Your task to perform on an android device: Go to accessibility settings Image 0: 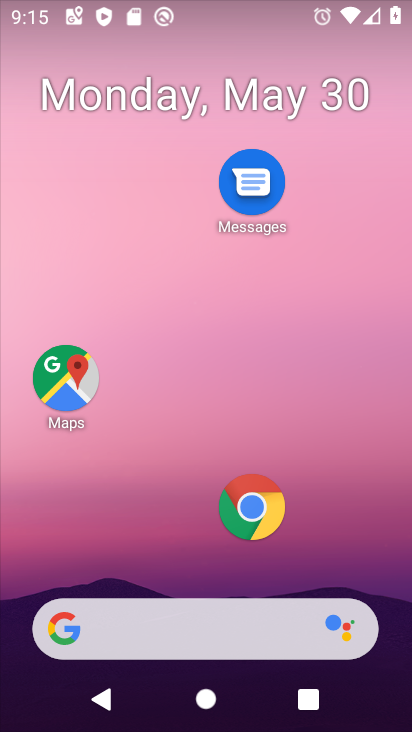
Step 0: drag from (206, 573) to (154, 114)
Your task to perform on an android device: Go to accessibility settings Image 1: 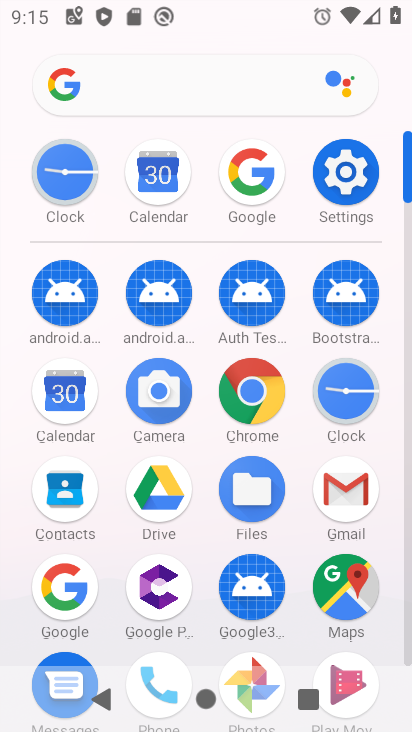
Step 1: click (344, 172)
Your task to perform on an android device: Go to accessibility settings Image 2: 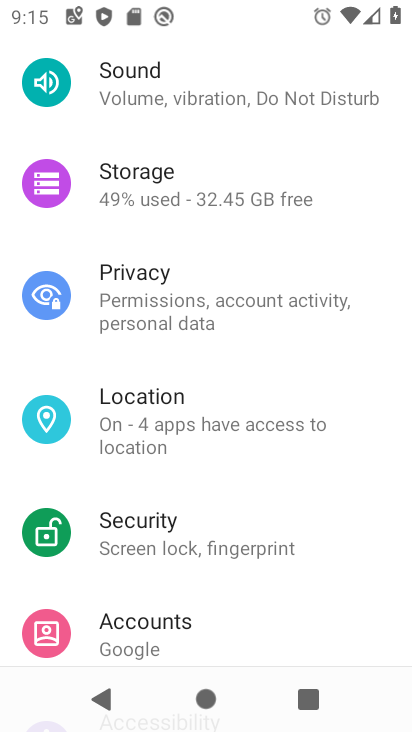
Step 2: drag from (154, 628) to (179, 268)
Your task to perform on an android device: Go to accessibility settings Image 3: 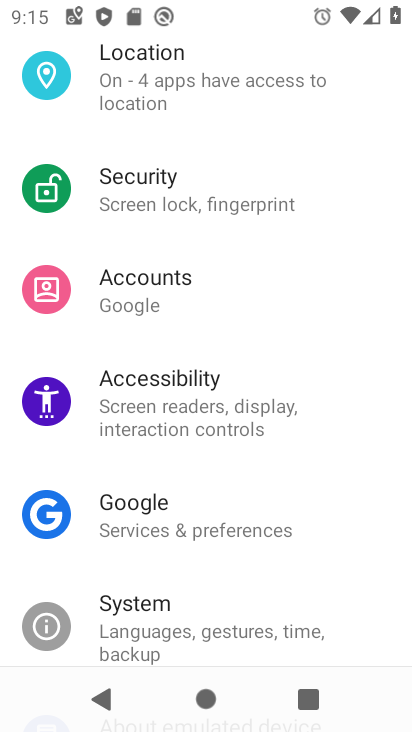
Step 3: click (193, 416)
Your task to perform on an android device: Go to accessibility settings Image 4: 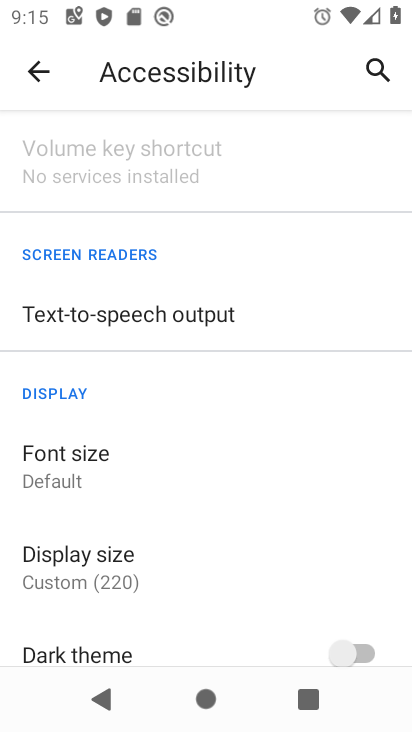
Step 4: task complete